Your task to perform on an android device: Show me productivity apps on the Play Store Image 0: 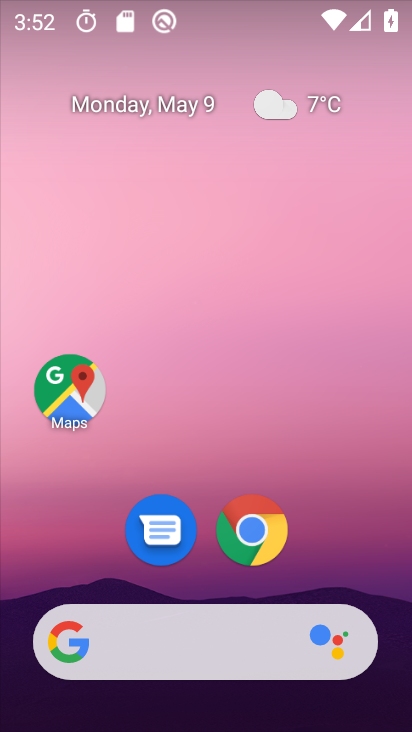
Step 0: drag from (187, 595) to (225, 128)
Your task to perform on an android device: Show me productivity apps on the Play Store Image 1: 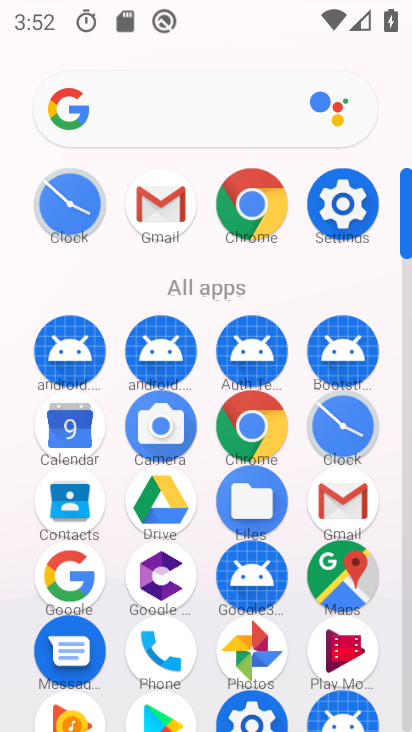
Step 1: click (149, 704)
Your task to perform on an android device: Show me productivity apps on the Play Store Image 2: 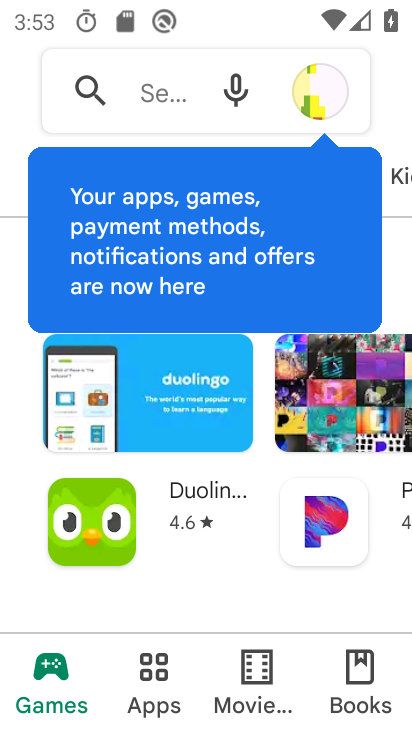
Step 2: click (162, 684)
Your task to perform on an android device: Show me productivity apps on the Play Store Image 3: 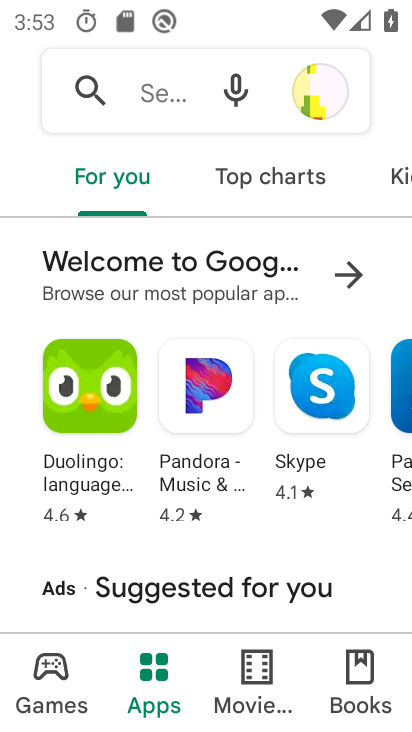
Step 3: drag from (197, 601) to (221, 142)
Your task to perform on an android device: Show me productivity apps on the Play Store Image 4: 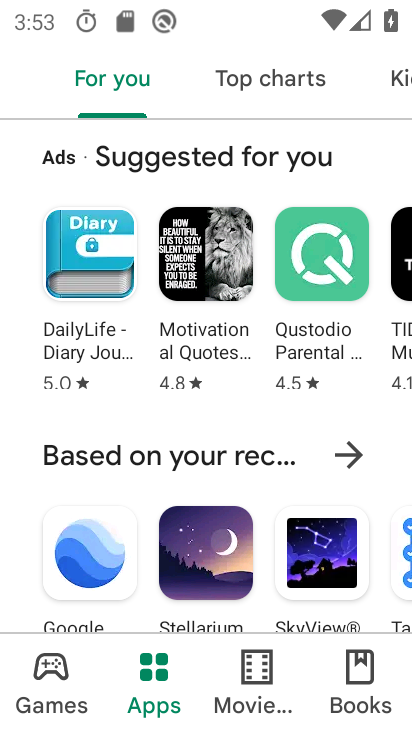
Step 4: drag from (179, 599) to (303, 98)
Your task to perform on an android device: Show me productivity apps on the Play Store Image 5: 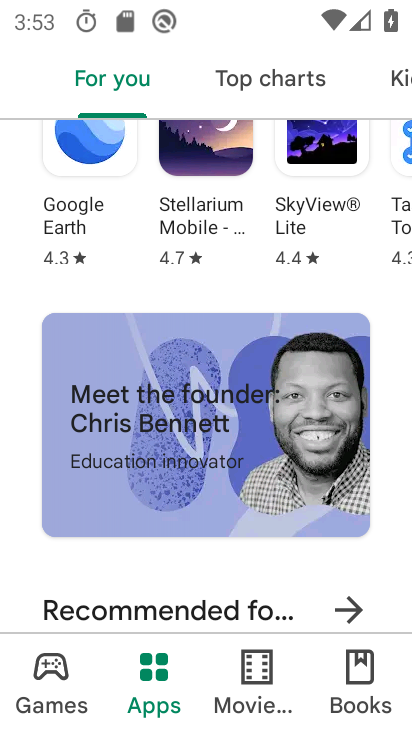
Step 5: drag from (181, 573) to (251, 84)
Your task to perform on an android device: Show me productivity apps on the Play Store Image 6: 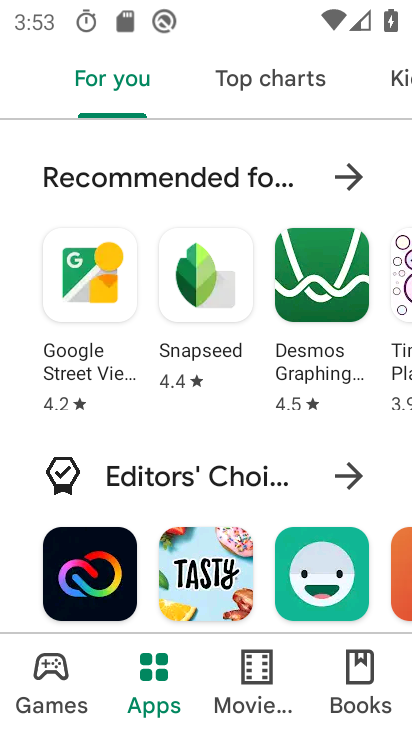
Step 6: drag from (145, 586) to (243, 57)
Your task to perform on an android device: Show me productivity apps on the Play Store Image 7: 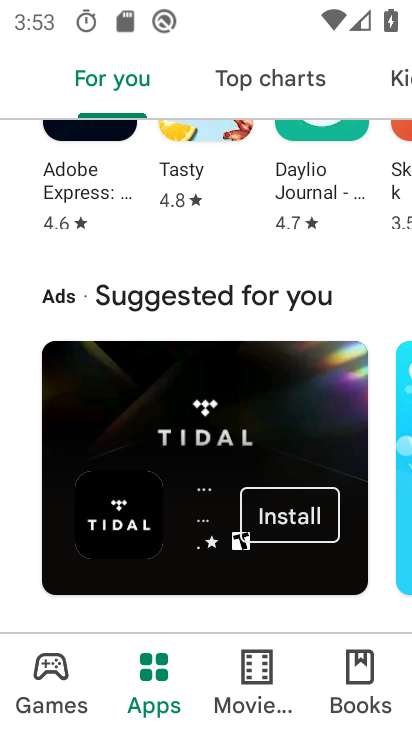
Step 7: drag from (175, 536) to (237, 25)
Your task to perform on an android device: Show me productivity apps on the Play Store Image 8: 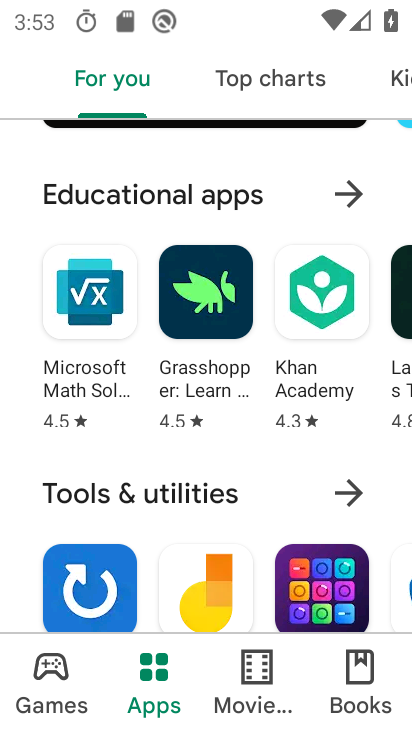
Step 8: drag from (175, 584) to (237, 95)
Your task to perform on an android device: Show me productivity apps on the Play Store Image 9: 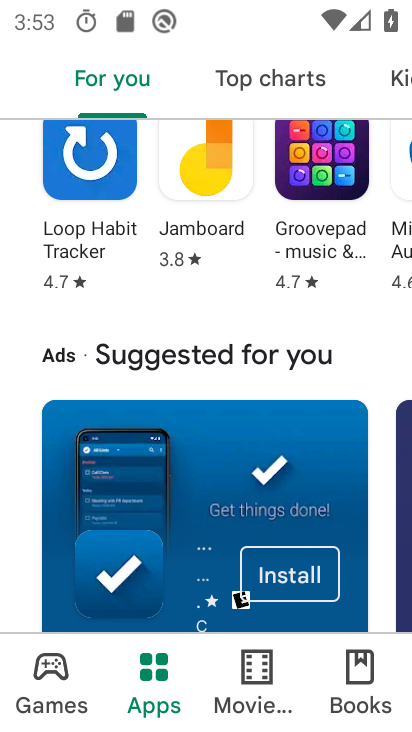
Step 9: drag from (188, 571) to (271, 21)
Your task to perform on an android device: Show me productivity apps on the Play Store Image 10: 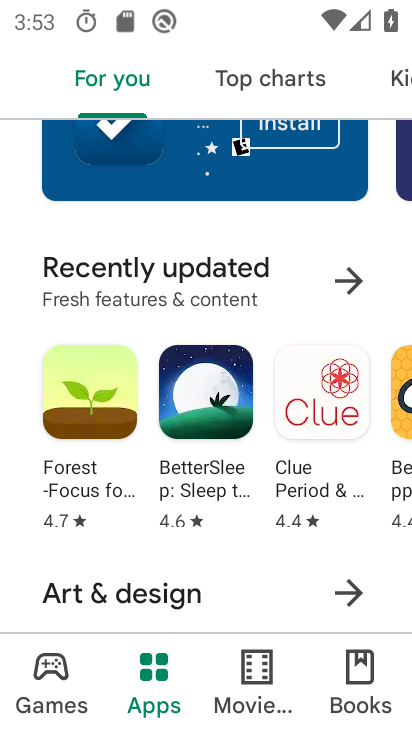
Step 10: drag from (170, 569) to (273, 32)
Your task to perform on an android device: Show me productivity apps on the Play Store Image 11: 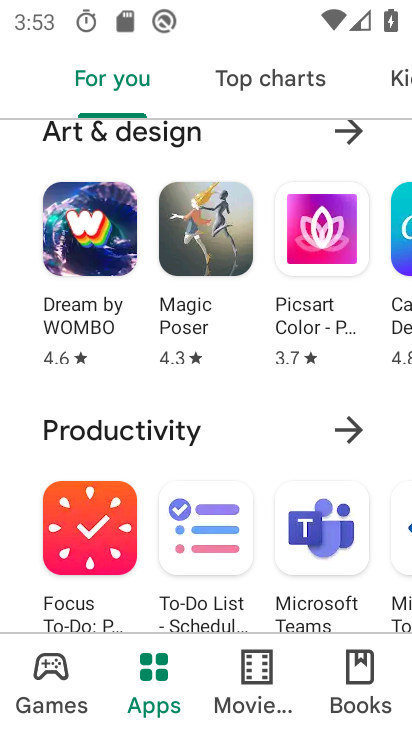
Step 11: click (346, 424)
Your task to perform on an android device: Show me productivity apps on the Play Store Image 12: 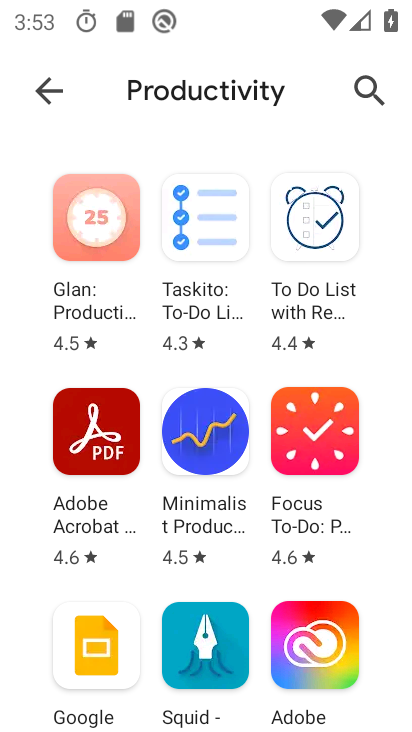
Step 12: task complete